Your task to perform on an android device: How much does a 2x4x8 board cost at Lowes? Image 0: 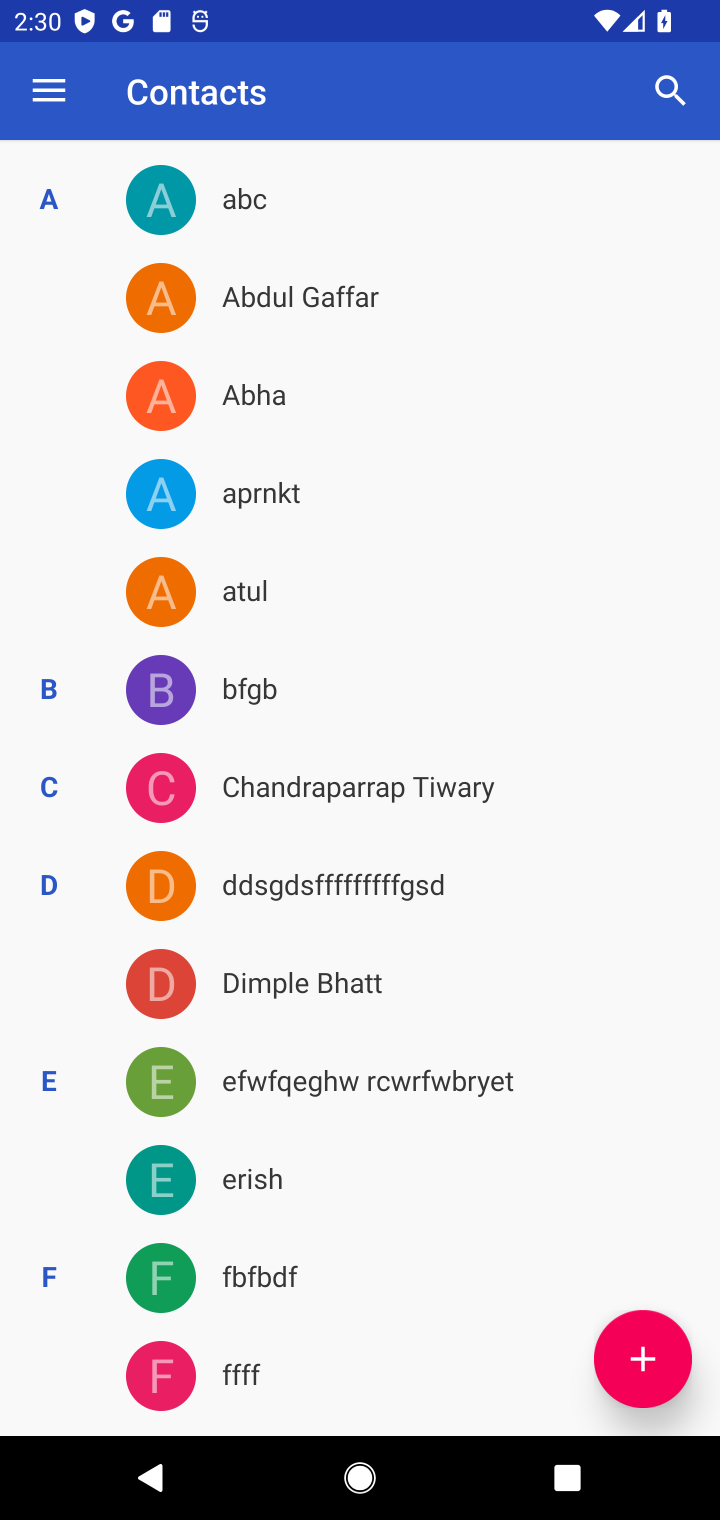
Step 0: press home button
Your task to perform on an android device: How much does a 2x4x8 board cost at Lowes? Image 1: 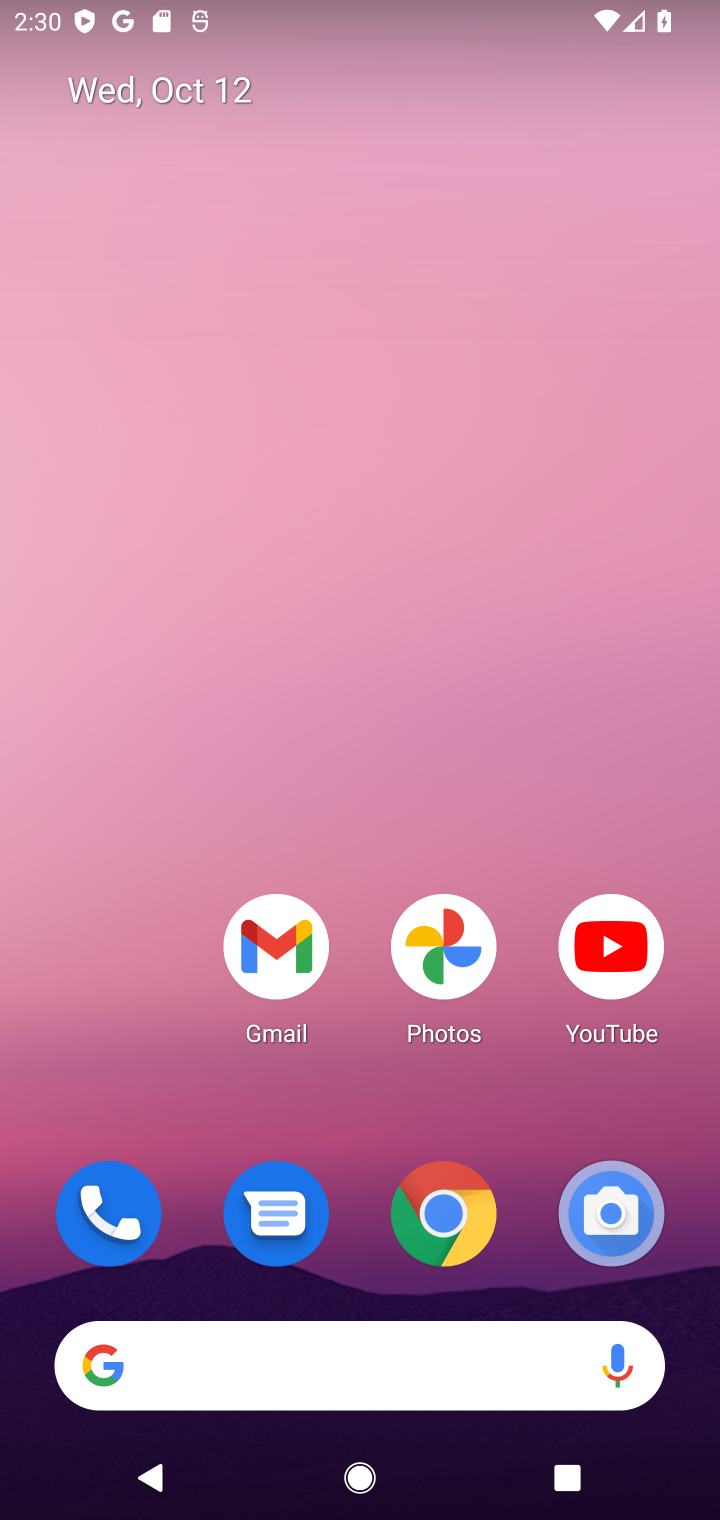
Step 1: click (231, 1362)
Your task to perform on an android device: How much does a 2x4x8 board cost at Lowes? Image 2: 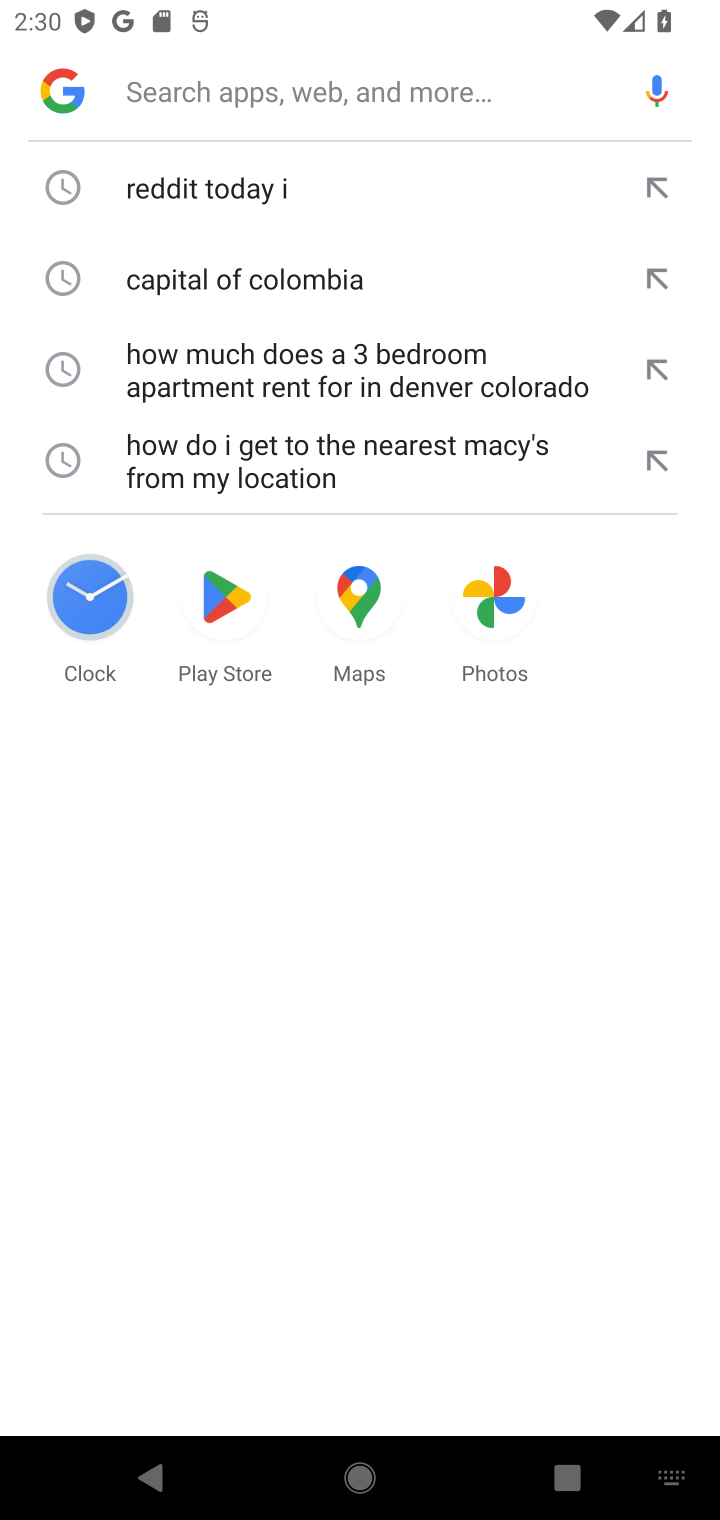
Step 2: click (301, 100)
Your task to perform on an android device: How much does a 2x4x8 board cost at Lowes? Image 3: 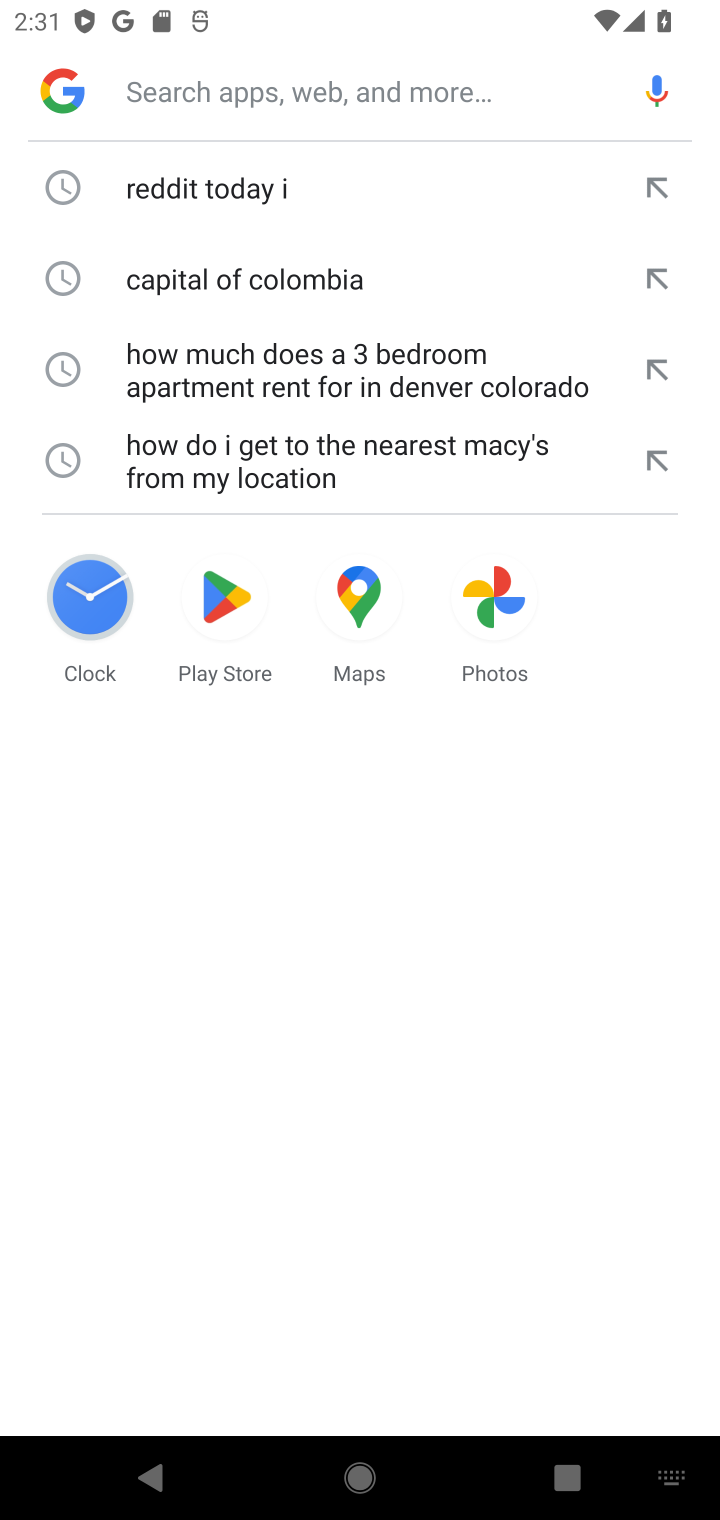
Step 3: click (152, 78)
Your task to perform on an android device: How much does a 2x4x8 board cost at Lowes? Image 4: 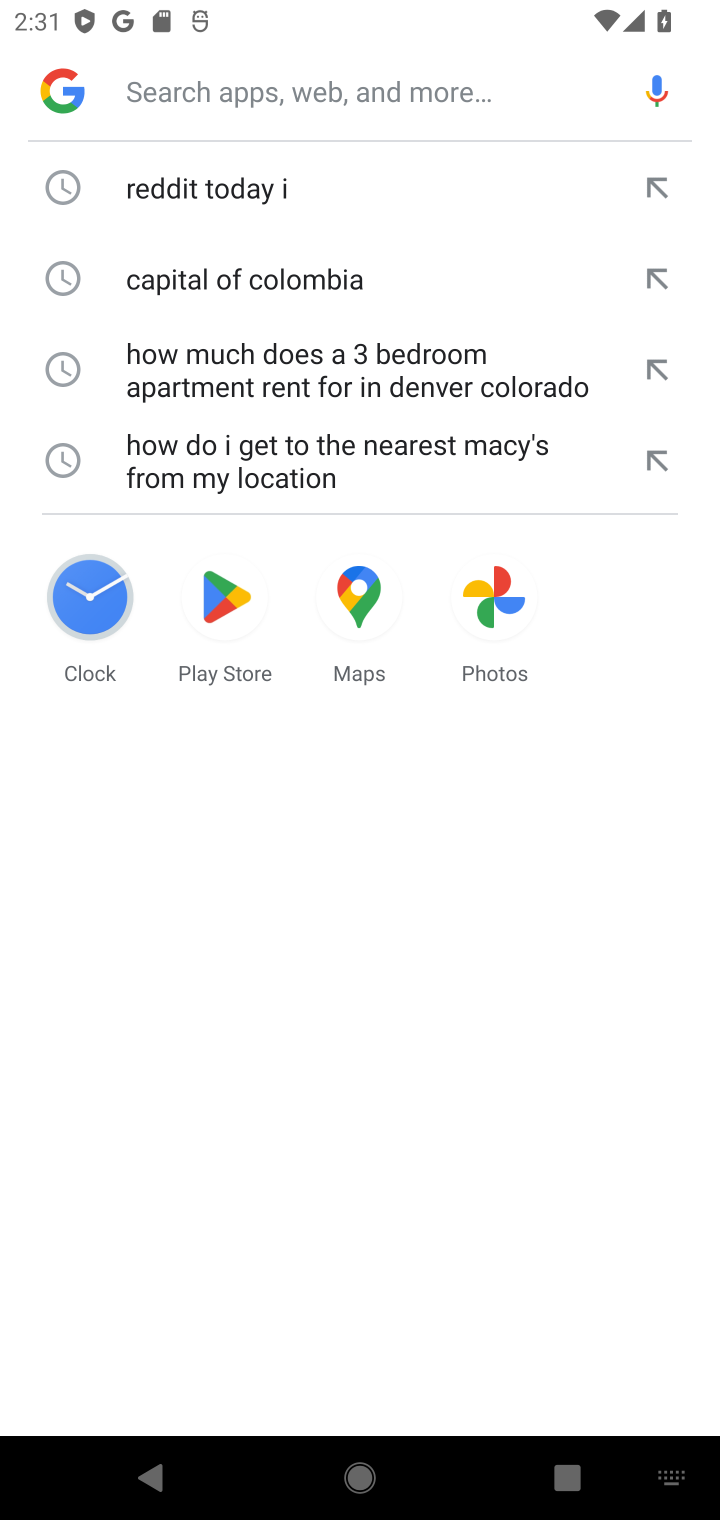
Step 4: type "How much does a 2x4x8 board cost at Lowes?"
Your task to perform on an android device: How much does a 2x4x8 board cost at Lowes? Image 5: 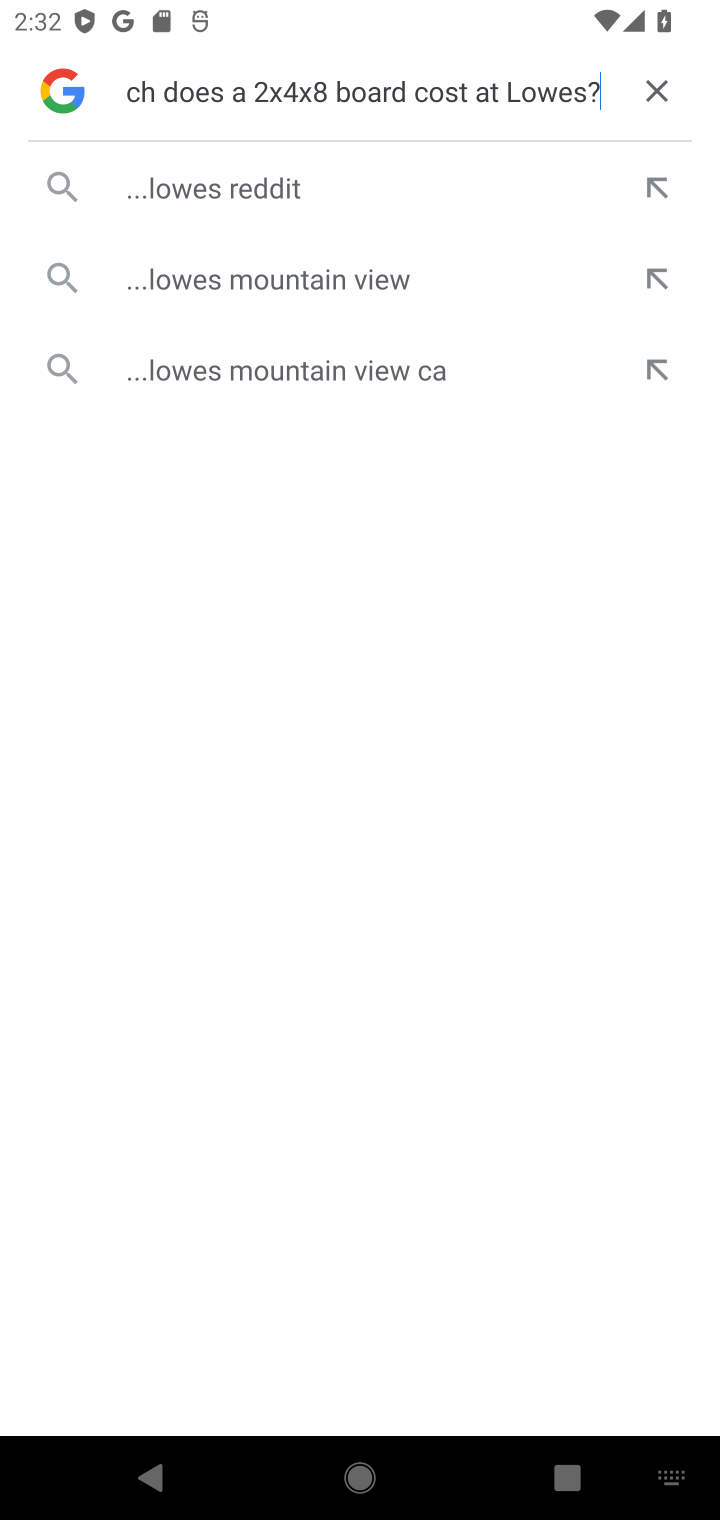
Step 5: click (292, 202)
Your task to perform on an android device: How much does a 2x4x8 board cost at Lowes? Image 6: 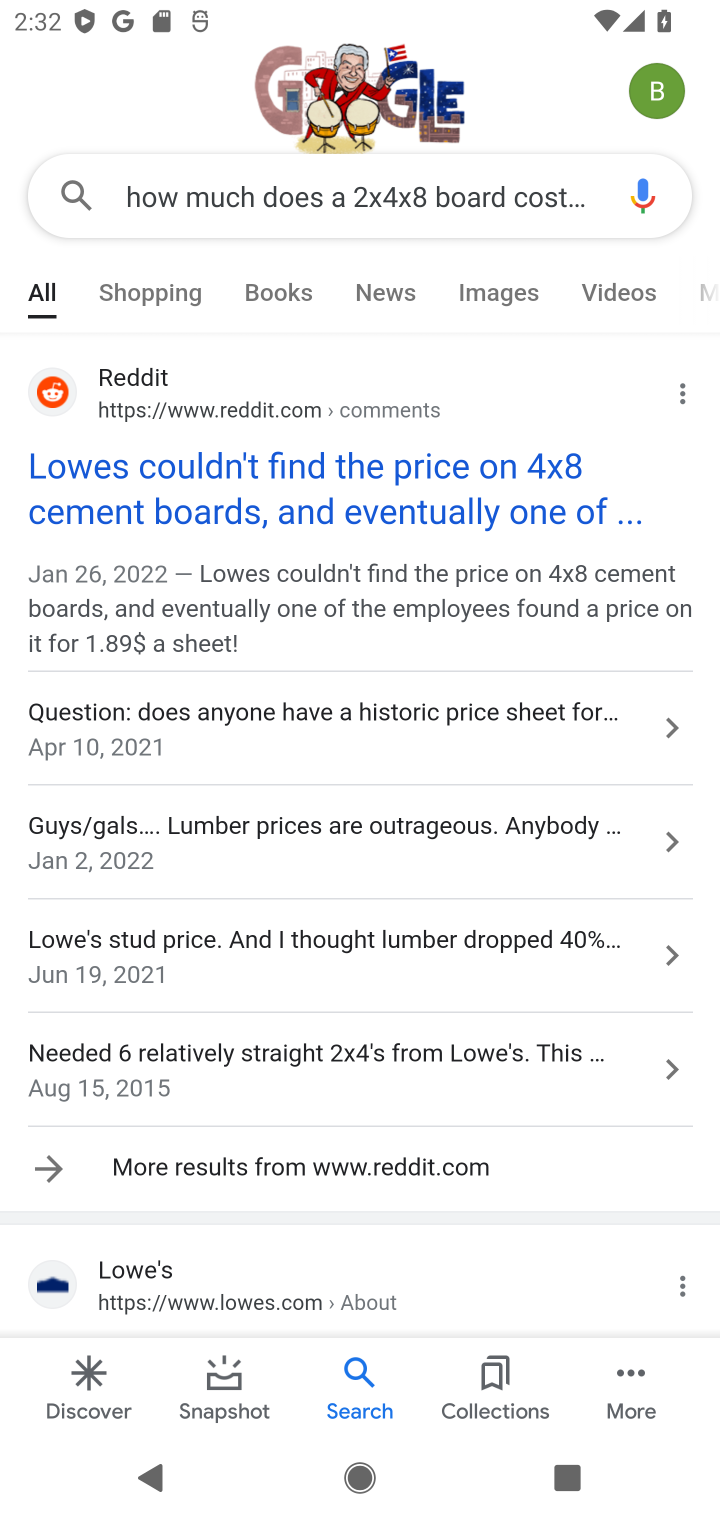
Step 6: click (255, 463)
Your task to perform on an android device: How much does a 2x4x8 board cost at Lowes? Image 7: 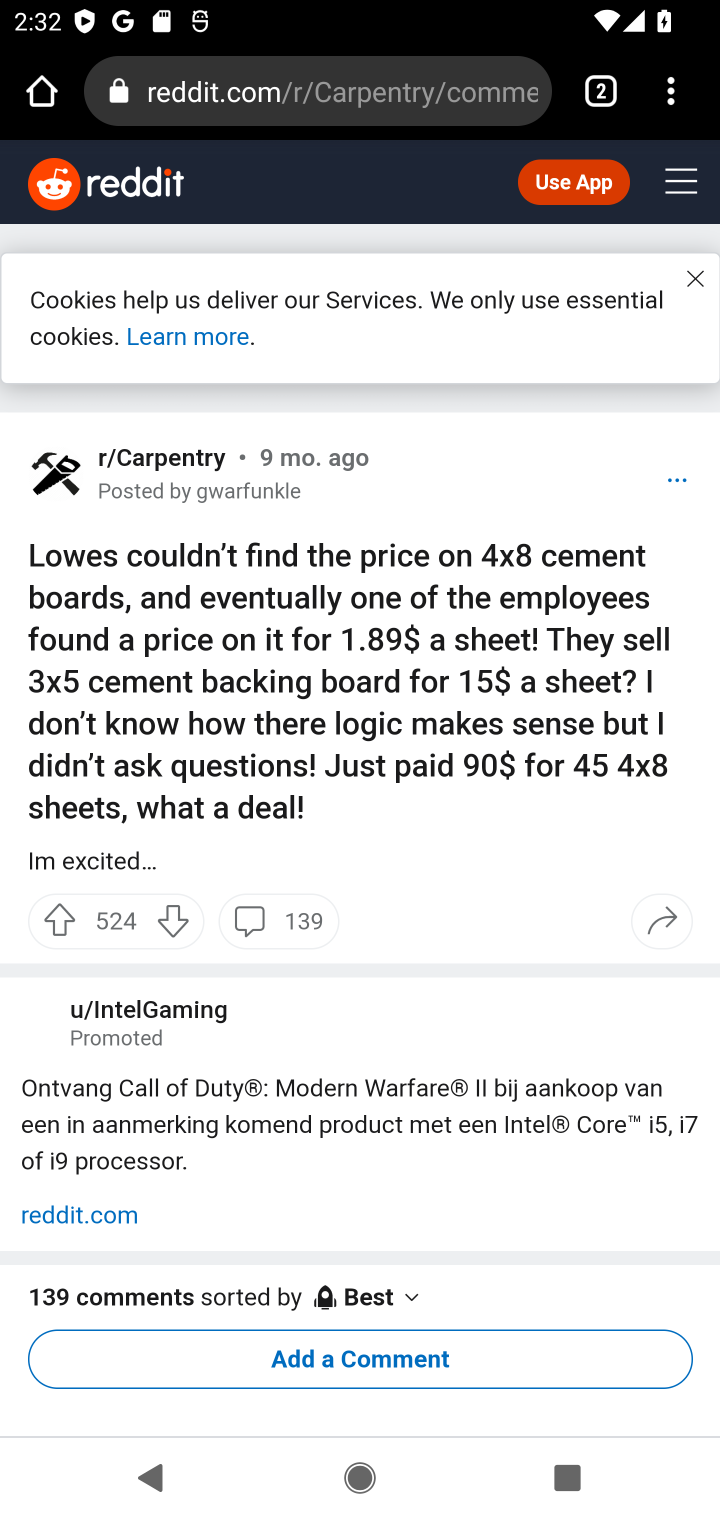
Step 7: task complete